Your task to perform on an android device: What's the weather going to be this weekend? Image 0: 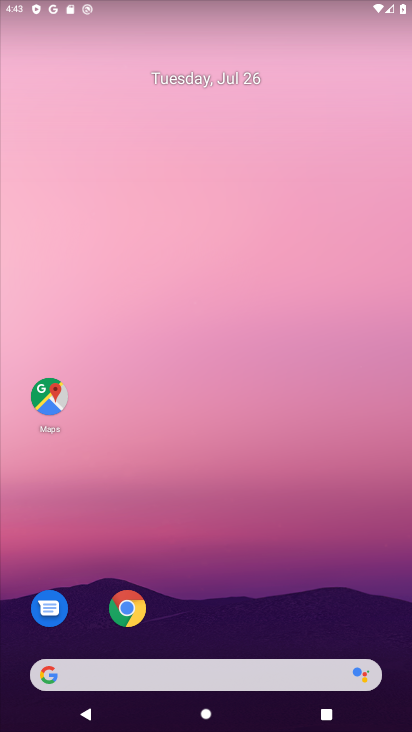
Step 0: drag from (188, 664) to (215, 48)
Your task to perform on an android device: What's the weather going to be this weekend? Image 1: 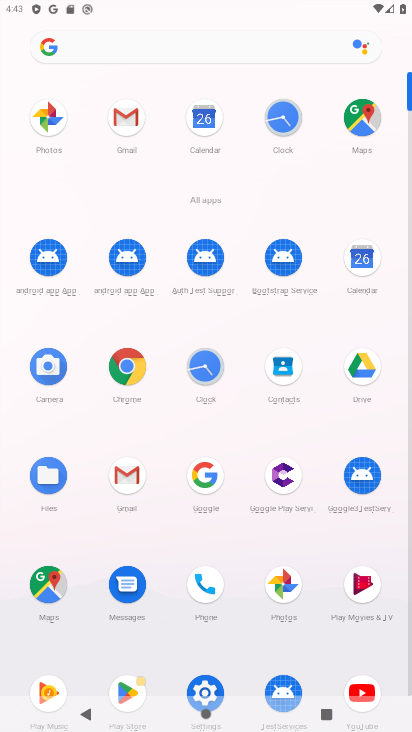
Step 1: click (205, 478)
Your task to perform on an android device: What's the weather going to be this weekend? Image 2: 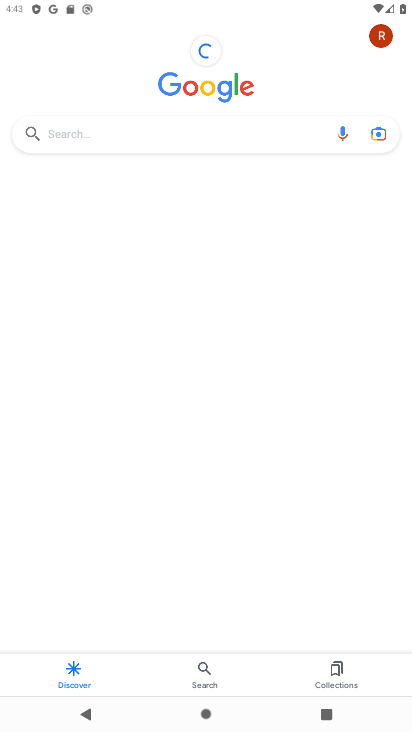
Step 2: click (123, 138)
Your task to perform on an android device: What's the weather going to be this weekend? Image 3: 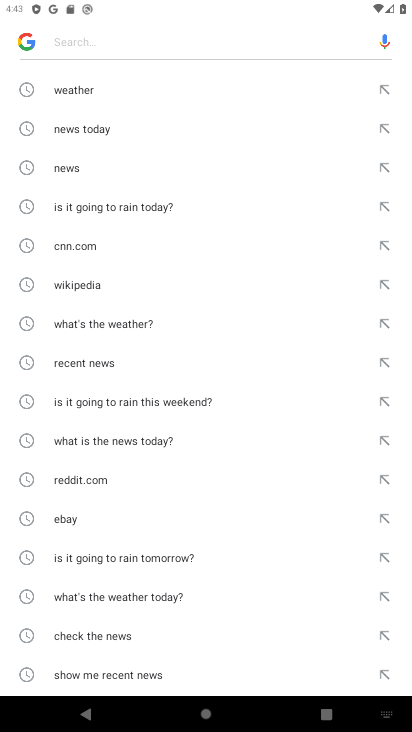
Step 3: drag from (165, 610) to (162, 256)
Your task to perform on an android device: What's the weather going to be this weekend? Image 4: 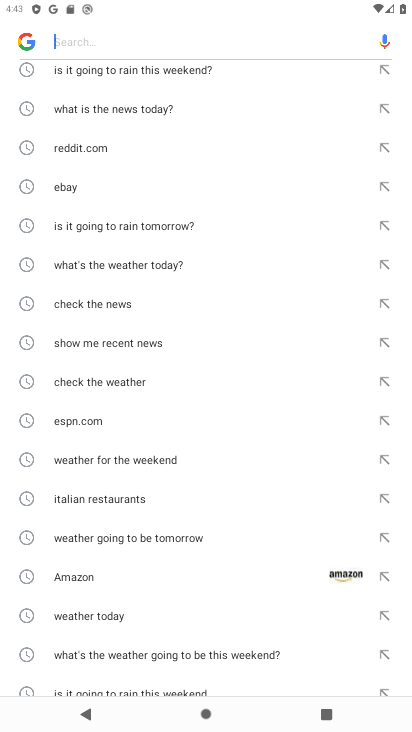
Step 4: click (166, 658)
Your task to perform on an android device: What's the weather going to be this weekend? Image 5: 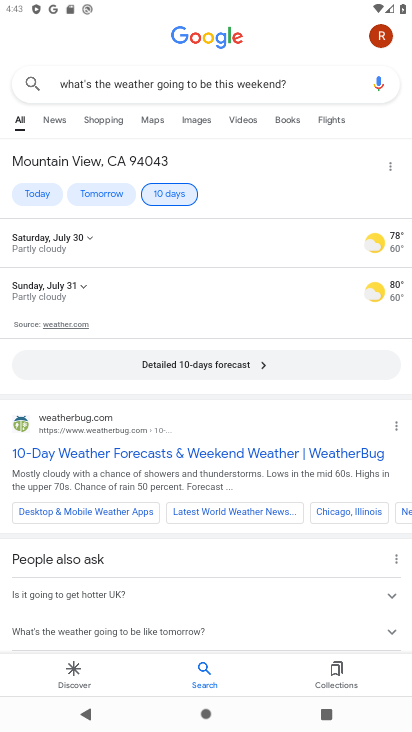
Step 5: click (236, 362)
Your task to perform on an android device: What's the weather going to be this weekend? Image 6: 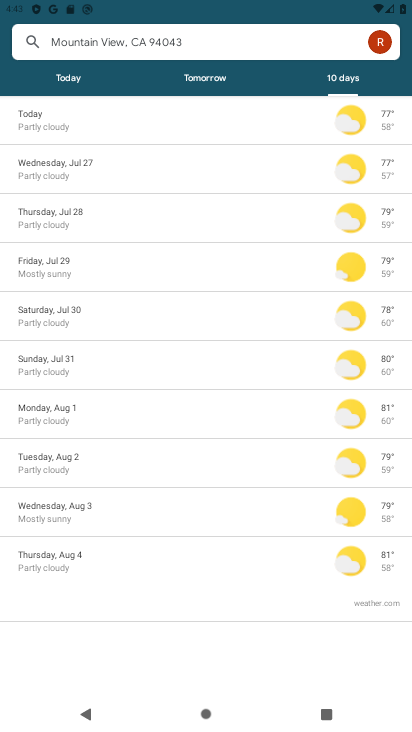
Step 6: task complete